Your task to perform on an android device: toggle airplane mode Image 0: 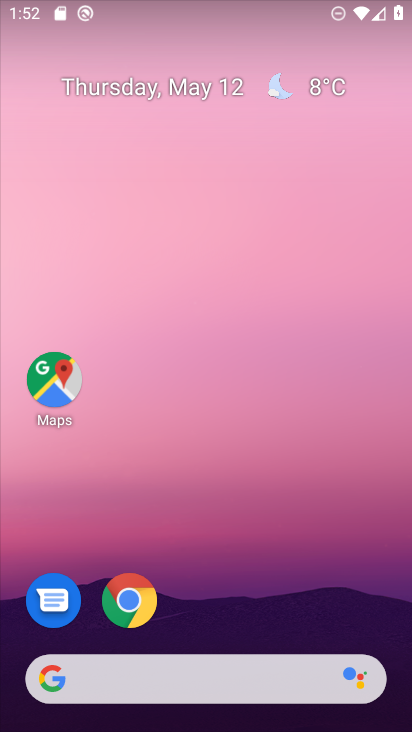
Step 0: drag from (202, 661) to (214, 211)
Your task to perform on an android device: toggle airplane mode Image 1: 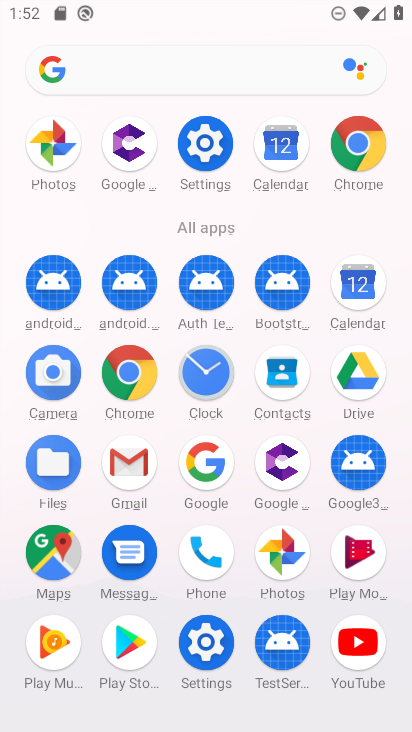
Step 1: click (207, 140)
Your task to perform on an android device: toggle airplane mode Image 2: 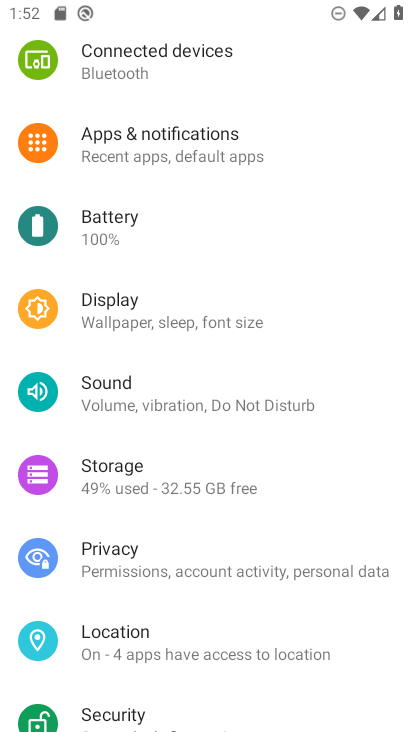
Step 2: drag from (196, 106) to (194, 537)
Your task to perform on an android device: toggle airplane mode Image 3: 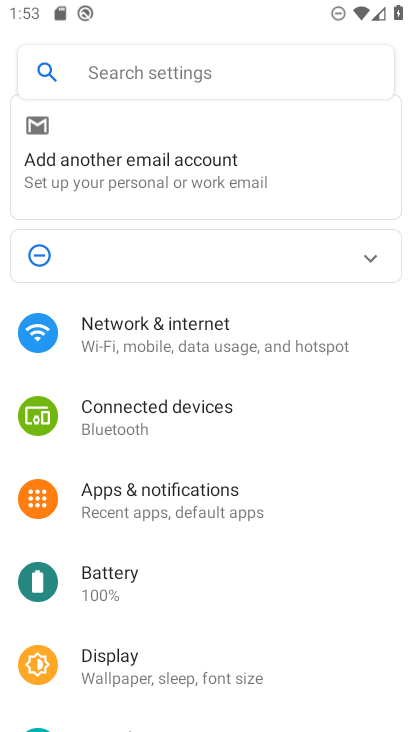
Step 3: click (163, 347)
Your task to perform on an android device: toggle airplane mode Image 4: 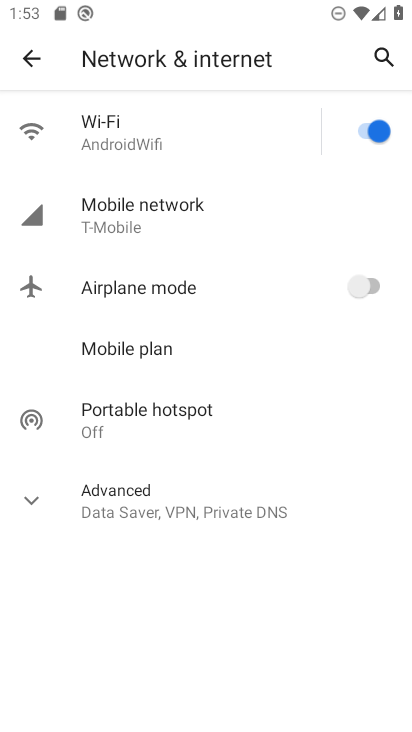
Step 4: task complete